Your task to perform on an android device: toggle data saver in the chrome app Image 0: 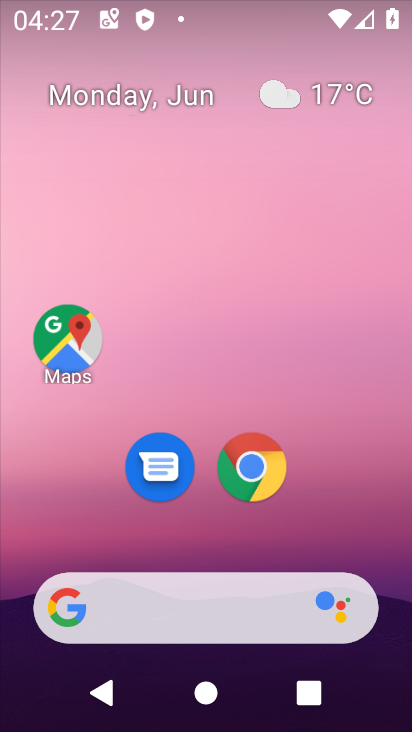
Step 0: click (264, 478)
Your task to perform on an android device: toggle data saver in the chrome app Image 1: 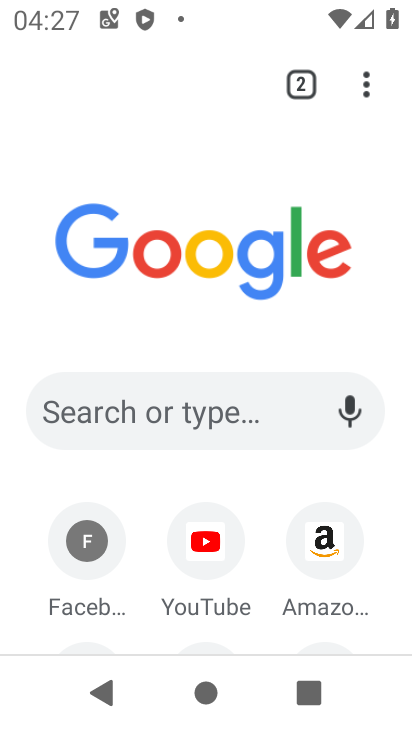
Step 1: click (359, 97)
Your task to perform on an android device: toggle data saver in the chrome app Image 2: 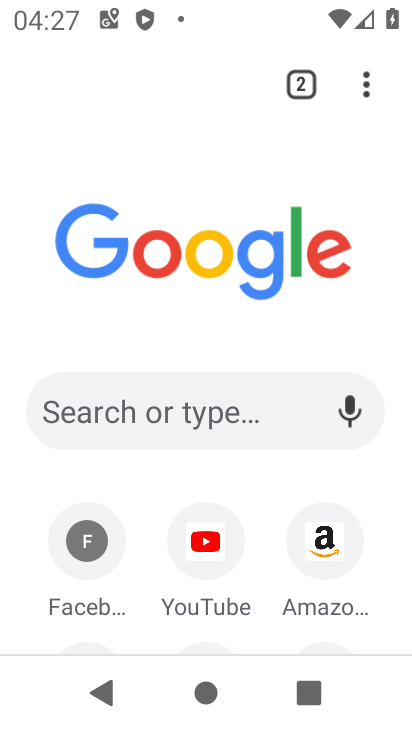
Step 2: click (373, 79)
Your task to perform on an android device: toggle data saver in the chrome app Image 3: 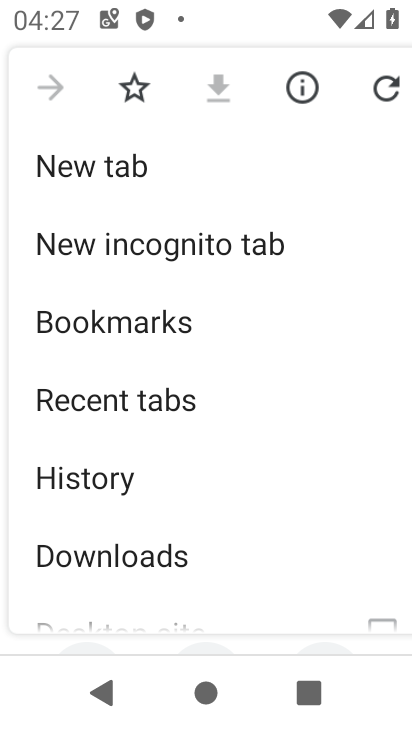
Step 3: drag from (158, 464) to (209, 109)
Your task to perform on an android device: toggle data saver in the chrome app Image 4: 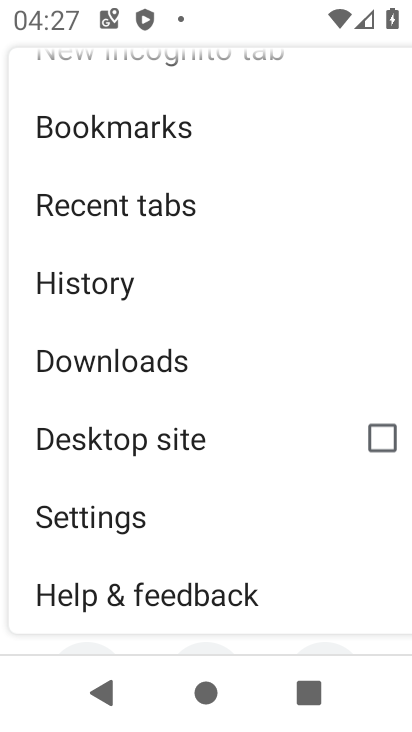
Step 4: drag from (147, 533) to (160, 360)
Your task to perform on an android device: toggle data saver in the chrome app Image 5: 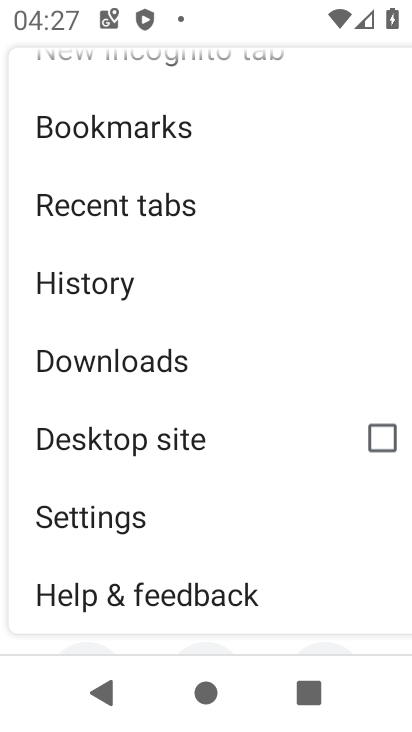
Step 5: click (113, 527)
Your task to perform on an android device: toggle data saver in the chrome app Image 6: 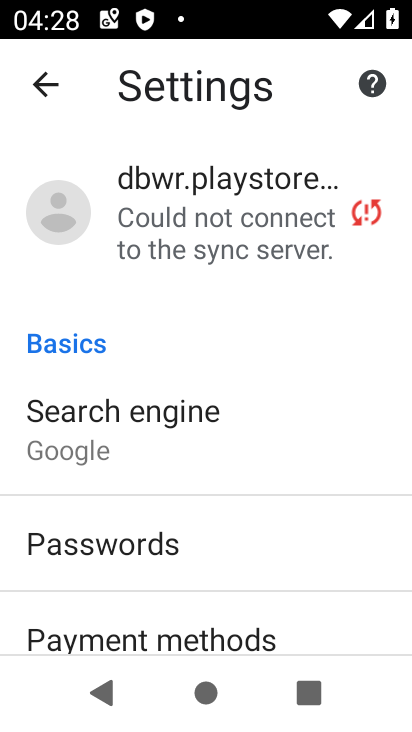
Step 6: drag from (183, 594) to (189, 454)
Your task to perform on an android device: toggle data saver in the chrome app Image 7: 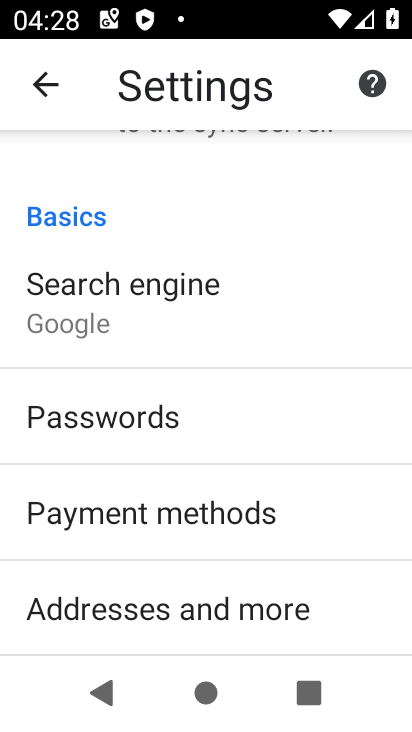
Step 7: drag from (191, 602) to (244, 262)
Your task to perform on an android device: toggle data saver in the chrome app Image 8: 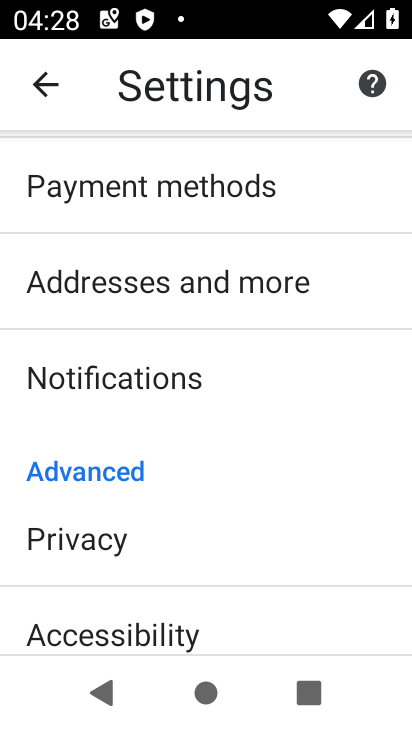
Step 8: drag from (157, 606) to (183, 375)
Your task to perform on an android device: toggle data saver in the chrome app Image 9: 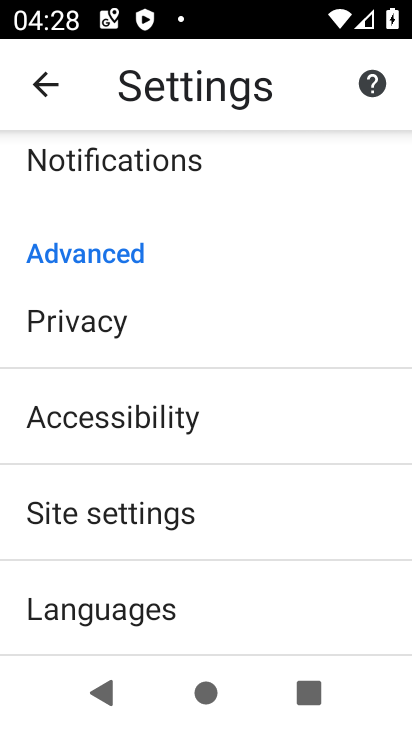
Step 9: drag from (119, 522) to (148, 387)
Your task to perform on an android device: toggle data saver in the chrome app Image 10: 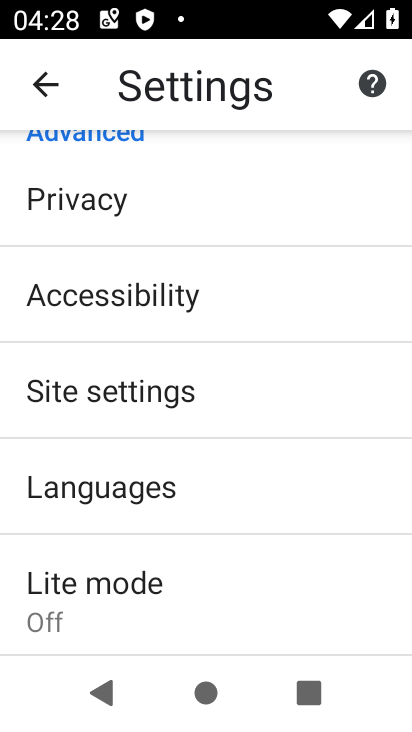
Step 10: click (106, 581)
Your task to perform on an android device: toggle data saver in the chrome app Image 11: 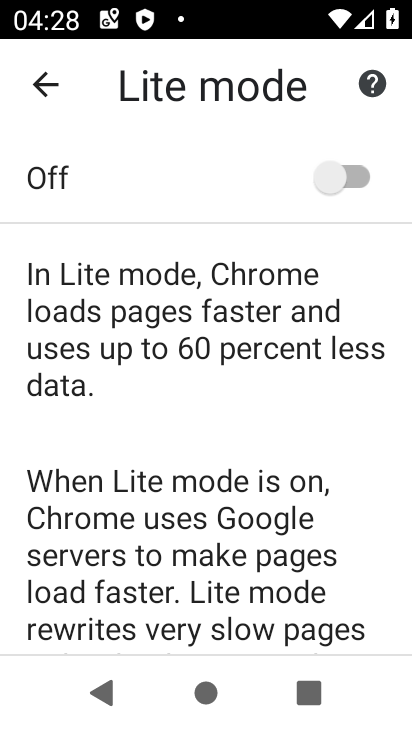
Step 11: click (345, 196)
Your task to perform on an android device: toggle data saver in the chrome app Image 12: 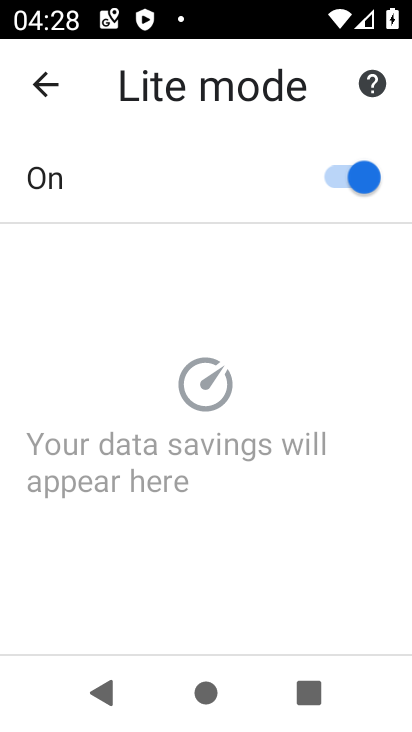
Step 12: task complete